Your task to perform on an android device: see tabs open on other devices in the chrome app Image 0: 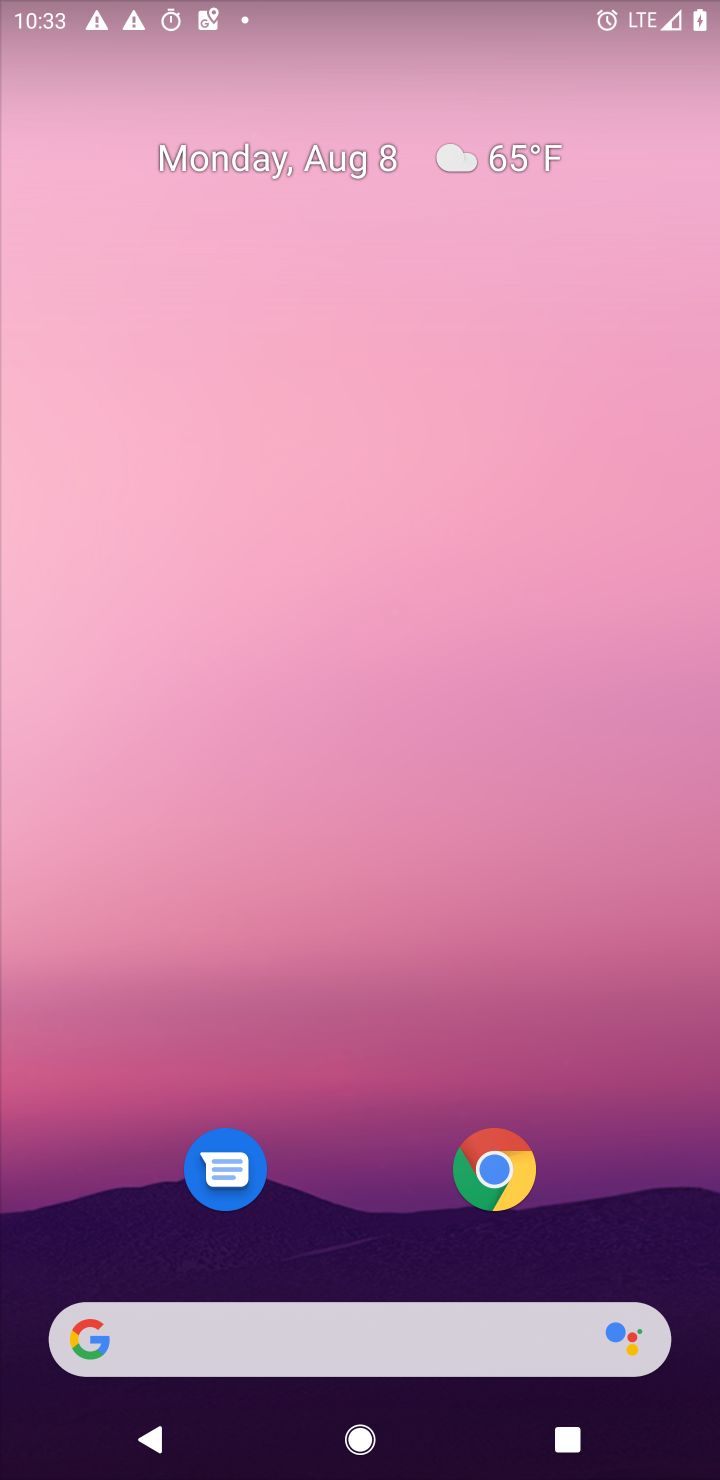
Step 0: click (504, 1167)
Your task to perform on an android device: see tabs open on other devices in the chrome app Image 1: 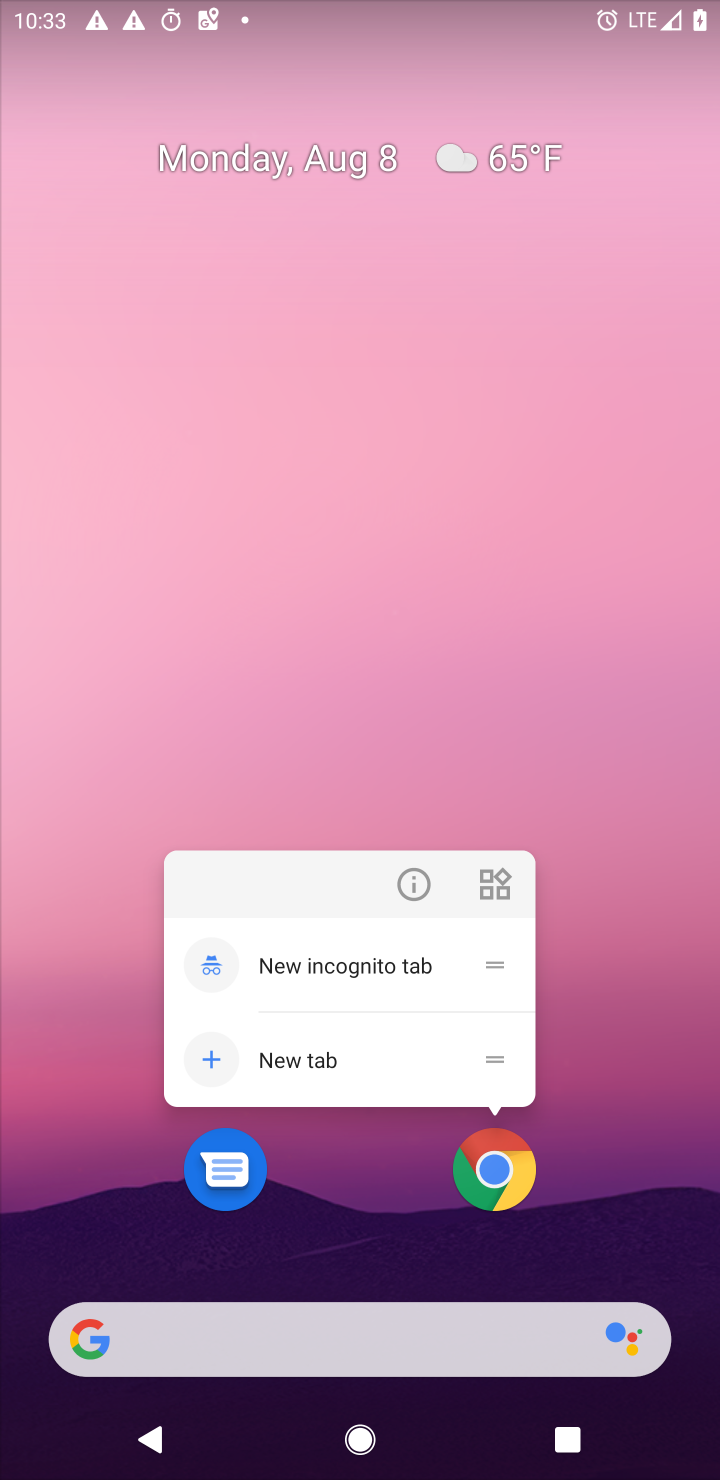
Step 1: click (495, 1187)
Your task to perform on an android device: see tabs open on other devices in the chrome app Image 2: 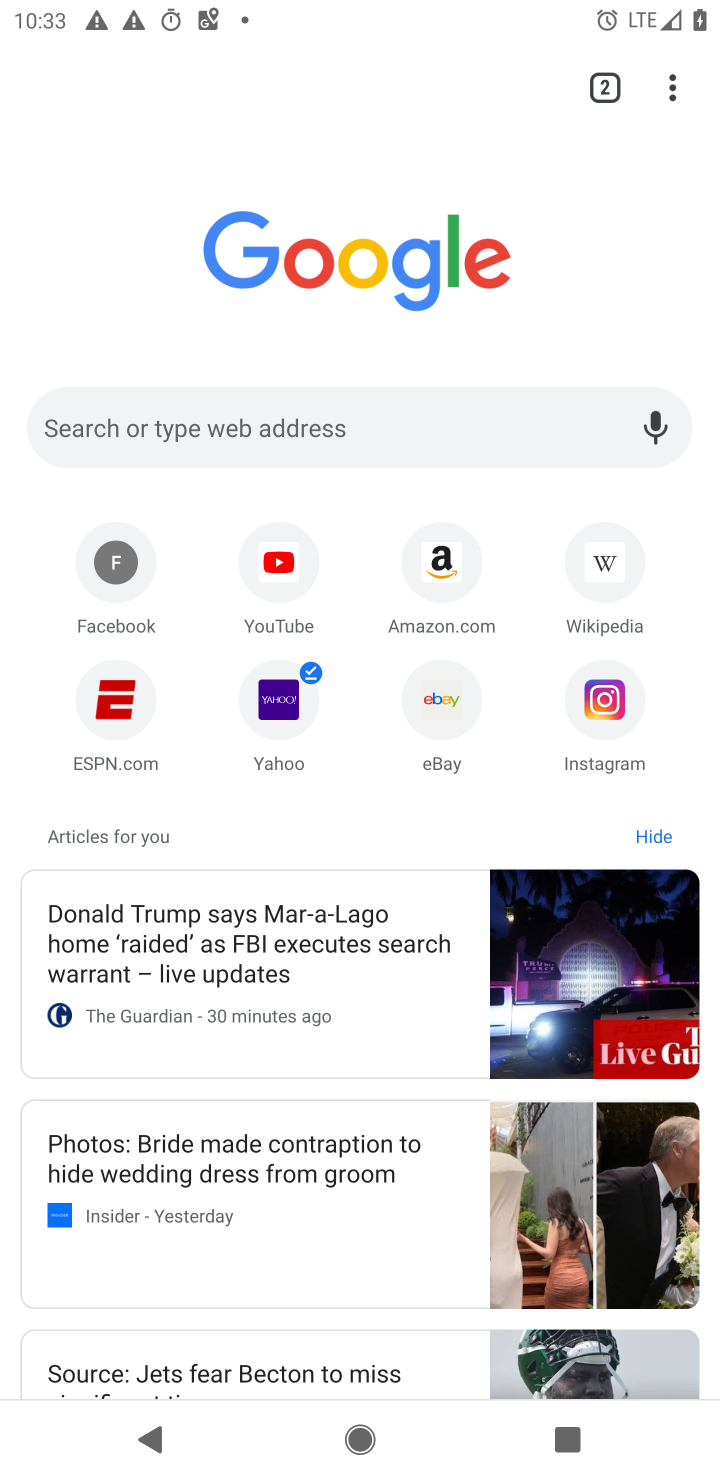
Step 2: task complete